Your task to perform on an android device: check android version Image 0: 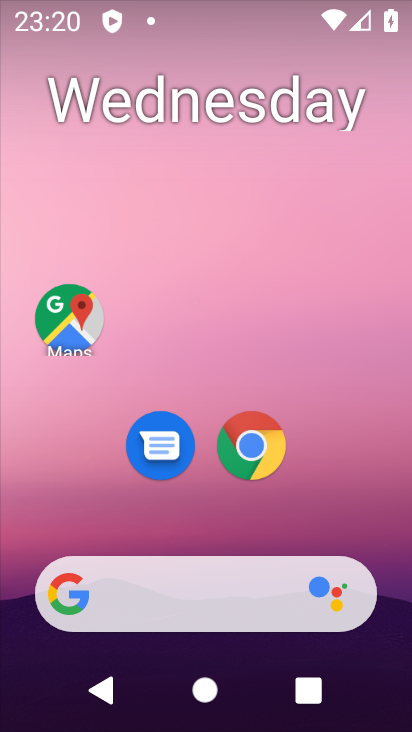
Step 0: drag from (196, 530) to (267, 86)
Your task to perform on an android device: check android version Image 1: 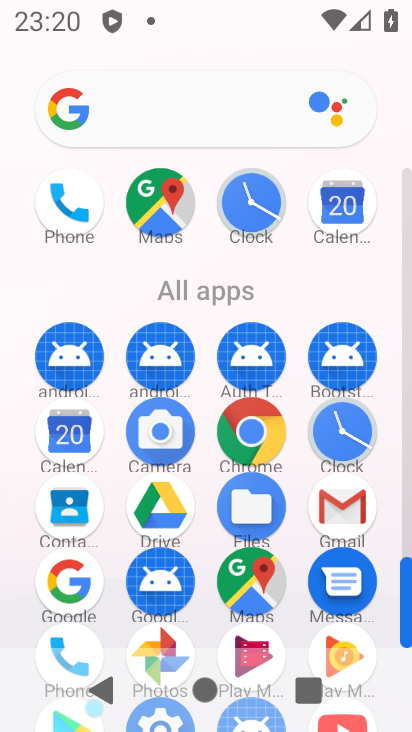
Step 1: drag from (222, 537) to (259, 105)
Your task to perform on an android device: check android version Image 2: 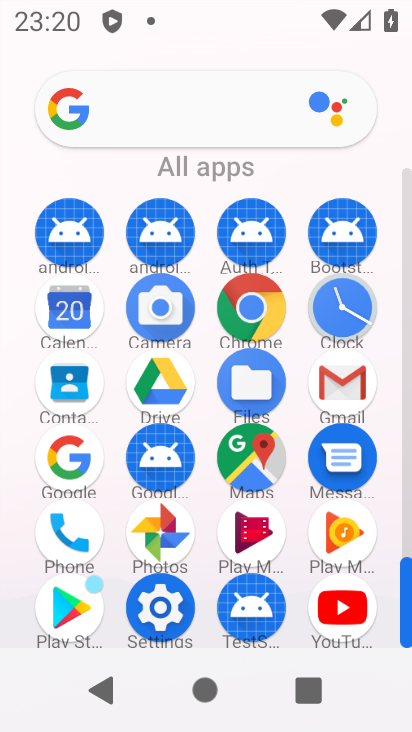
Step 2: click (161, 600)
Your task to perform on an android device: check android version Image 3: 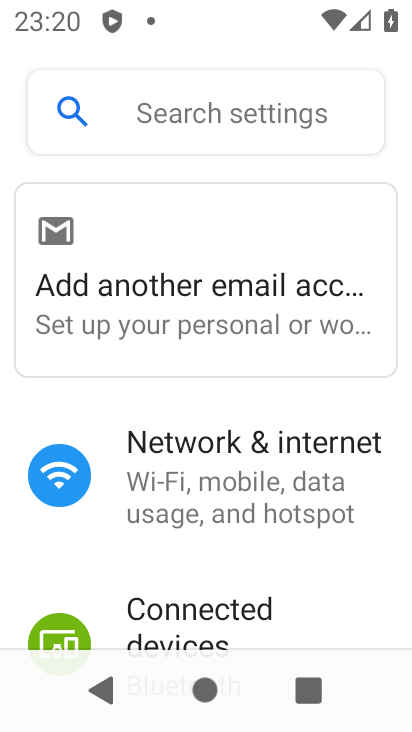
Step 3: drag from (198, 559) to (291, 146)
Your task to perform on an android device: check android version Image 4: 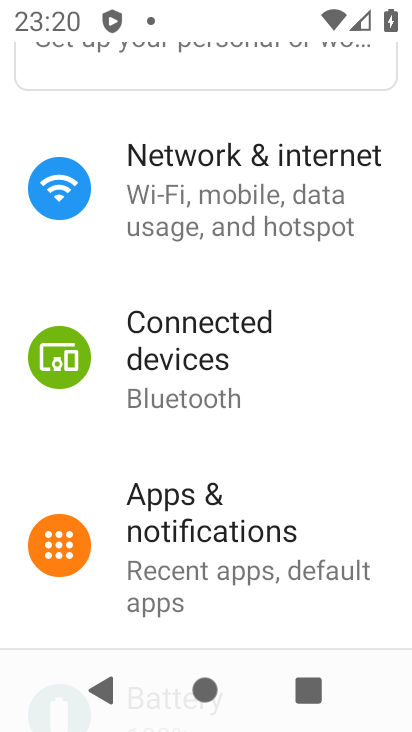
Step 4: drag from (231, 569) to (298, 73)
Your task to perform on an android device: check android version Image 5: 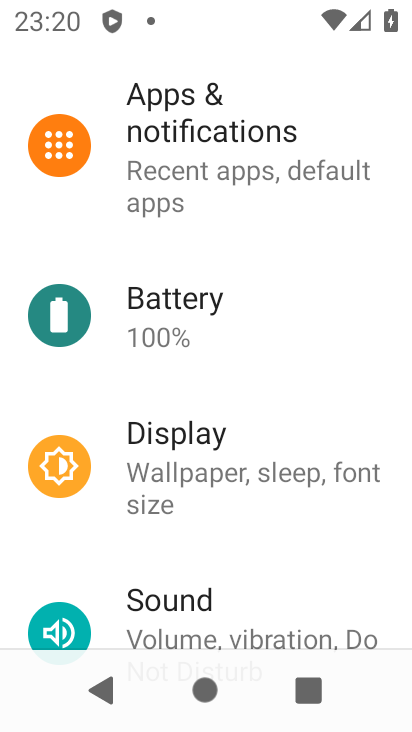
Step 5: drag from (230, 567) to (277, 119)
Your task to perform on an android device: check android version Image 6: 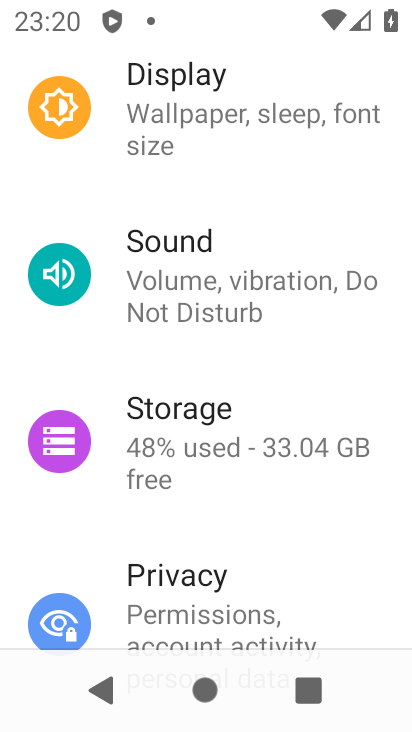
Step 6: drag from (157, 581) to (249, 167)
Your task to perform on an android device: check android version Image 7: 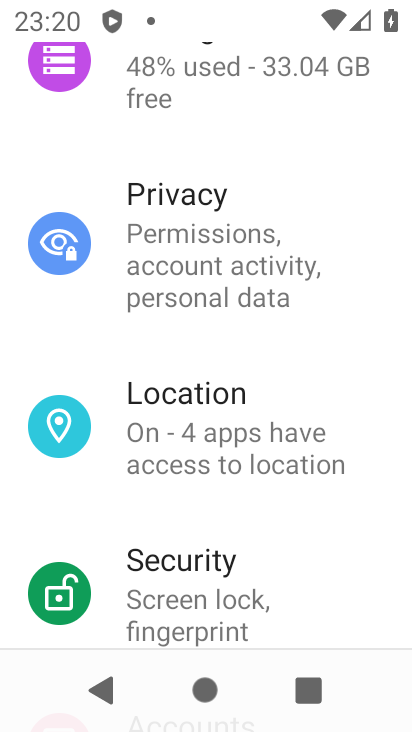
Step 7: drag from (207, 591) to (256, 91)
Your task to perform on an android device: check android version Image 8: 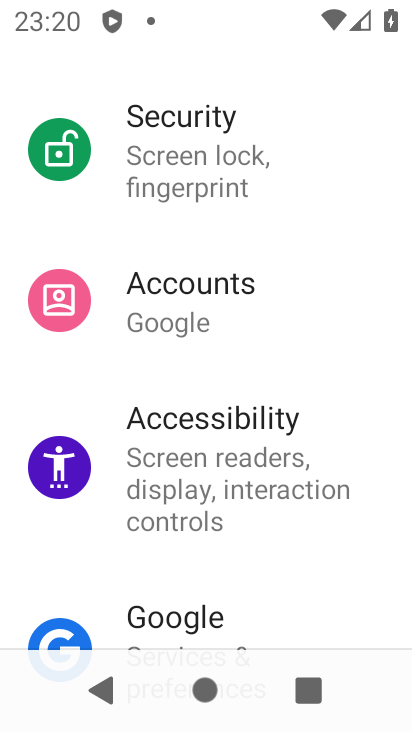
Step 8: drag from (182, 505) to (199, 42)
Your task to perform on an android device: check android version Image 9: 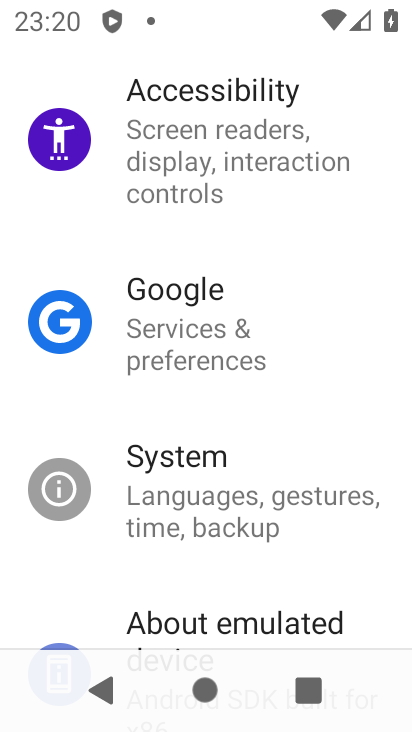
Step 9: drag from (188, 561) to (304, 35)
Your task to perform on an android device: check android version Image 10: 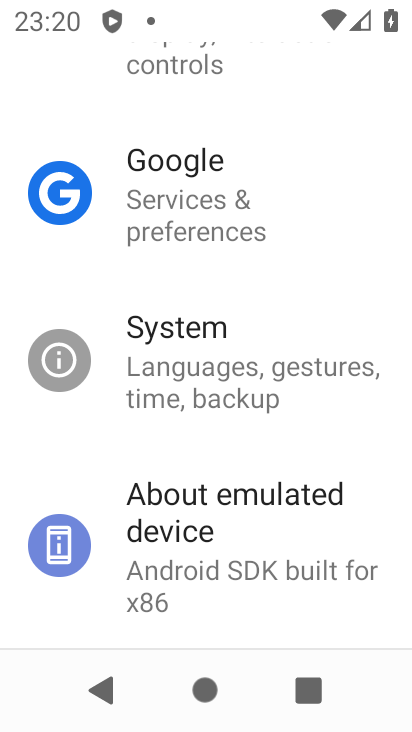
Step 10: drag from (205, 576) to (289, 224)
Your task to perform on an android device: check android version Image 11: 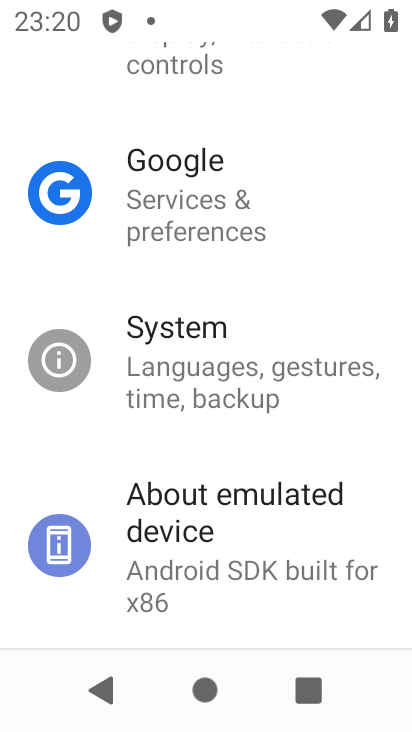
Step 11: click (189, 537)
Your task to perform on an android device: check android version Image 12: 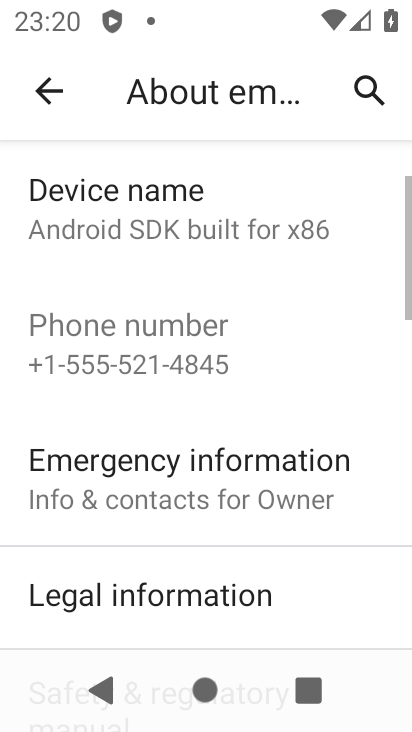
Step 12: drag from (175, 582) to (270, 95)
Your task to perform on an android device: check android version Image 13: 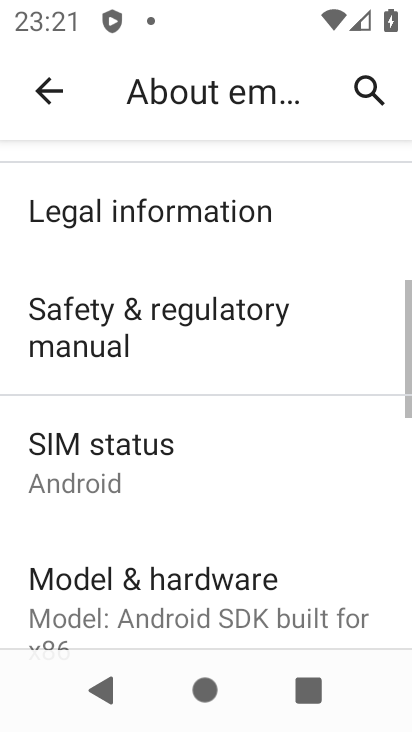
Step 13: drag from (216, 224) to (200, 537)
Your task to perform on an android device: check android version Image 14: 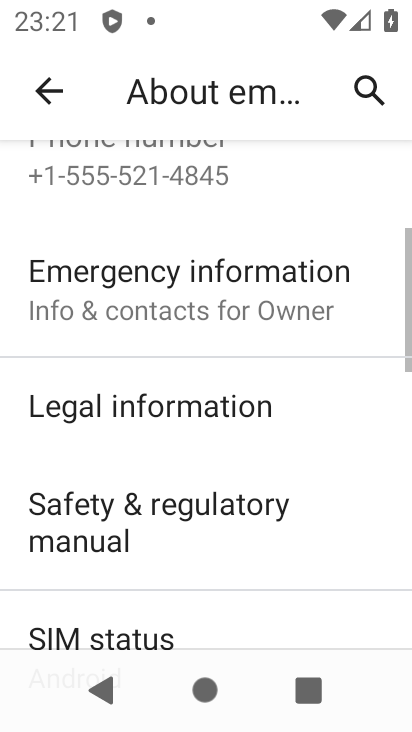
Step 14: drag from (253, 228) to (227, 597)
Your task to perform on an android device: check android version Image 15: 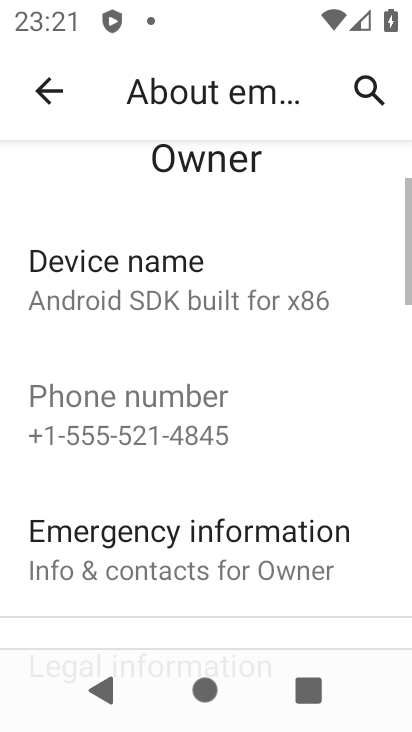
Step 15: drag from (246, 525) to (273, 92)
Your task to perform on an android device: check android version Image 16: 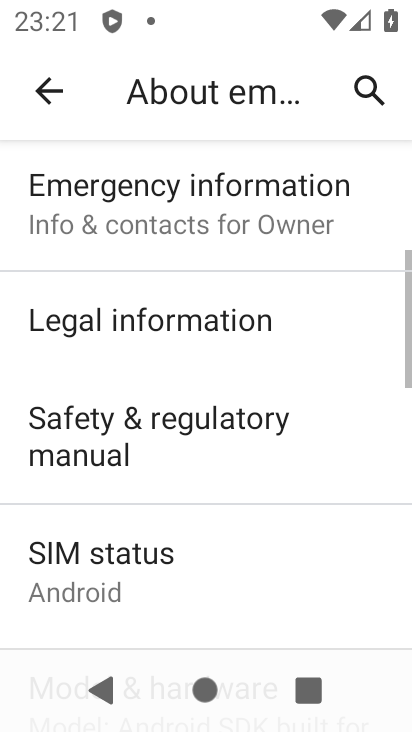
Step 16: drag from (107, 585) to (201, 142)
Your task to perform on an android device: check android version Image 17: 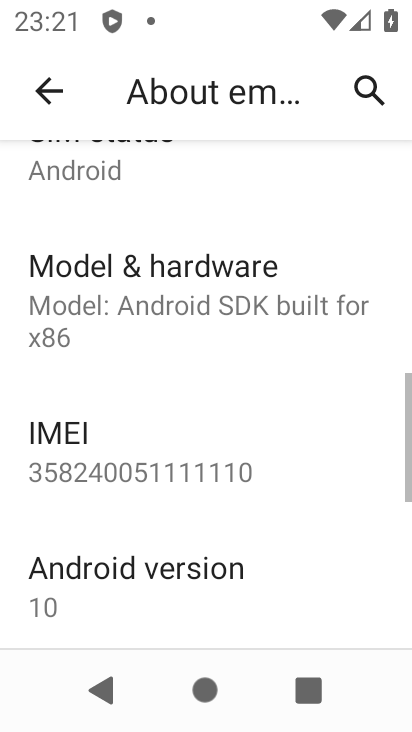
Step 17: click (103, 162)
Your task to perform on an android device: check android version Image 18: 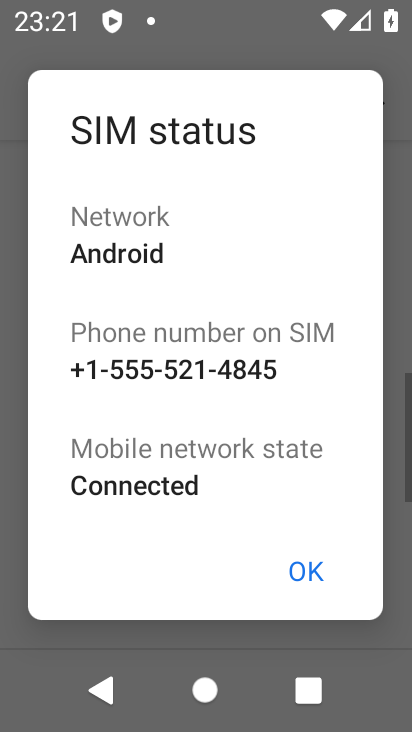
Step 18: click (297, 569)
Your task to perform on an android device: check android version Image 19: 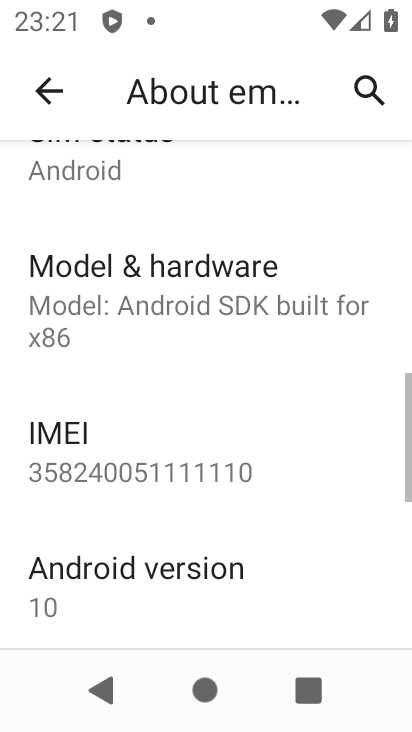
Step 19: drag from (197, 552) to (276, 183)
Your task to perform on an android device: check android version Image 20: 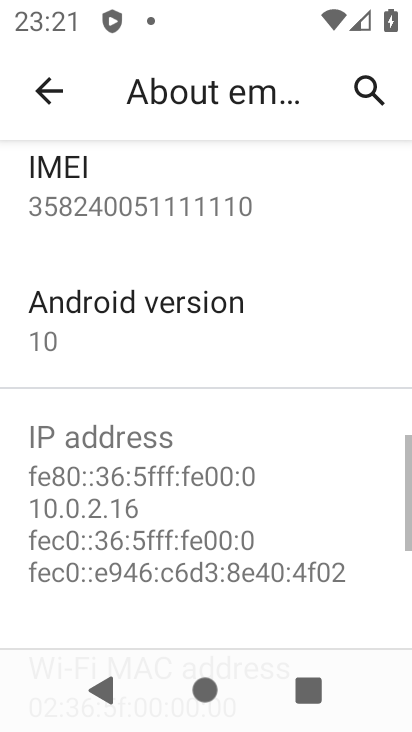
Step 20: click (131, 319)
Your task to perform on an android device: check android version Image 21: 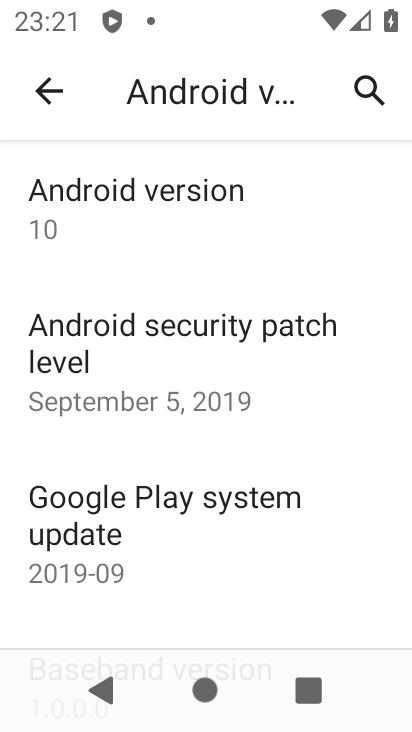
Step 21: task complete